Your task to perform on an android device: add a label to a message in the gmail app Image 0: 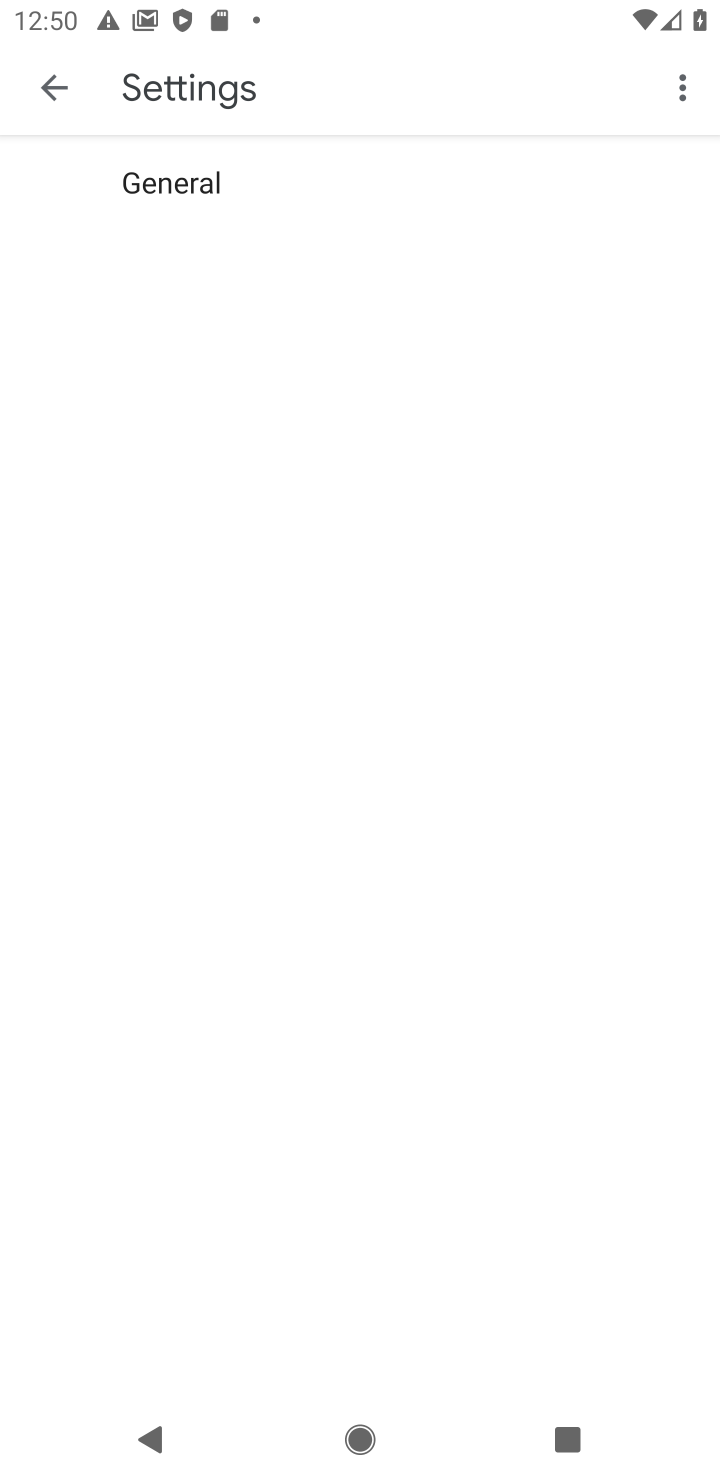
Step 0: press home button
Your task to perform on an android device: add a label to a message in the gmail app Image 1: 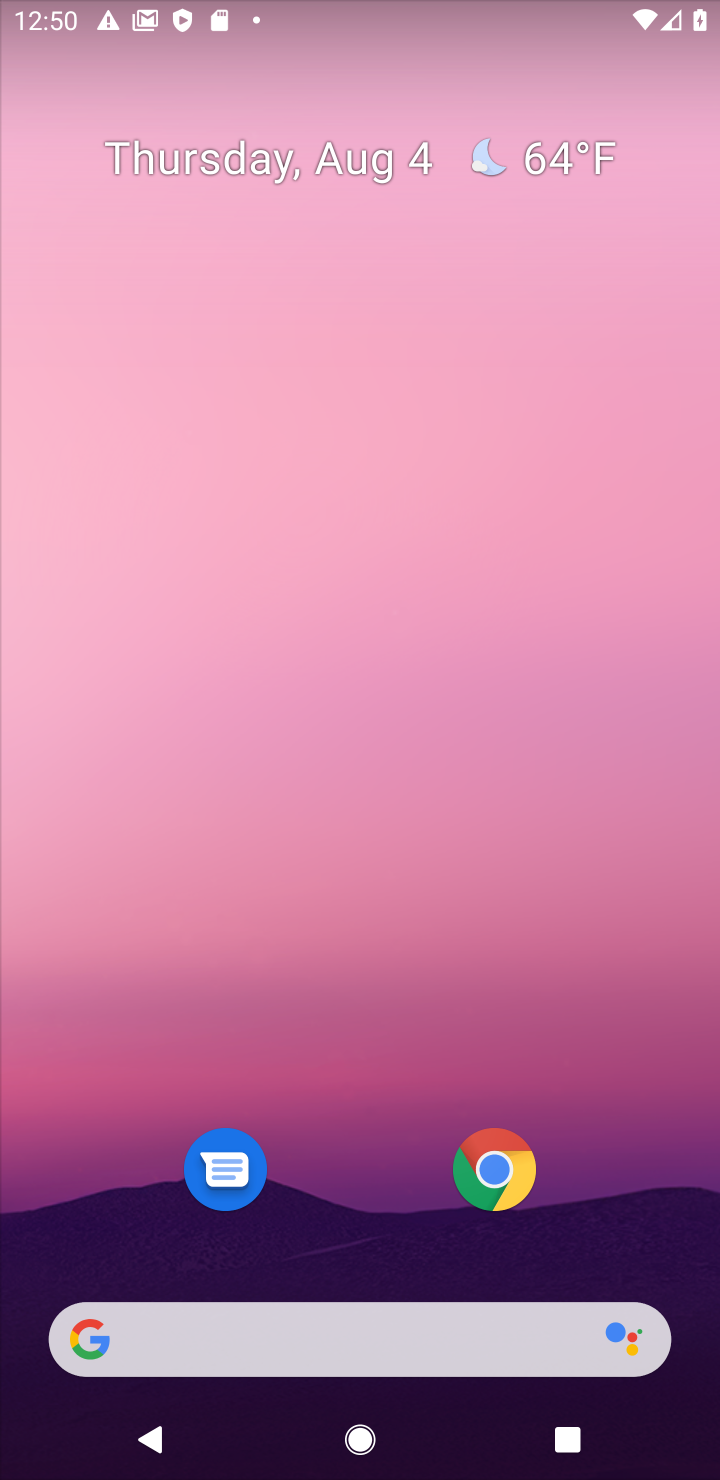
Step 1: drag from (339, 1129) to (388, 29)
Your task to perform on an android device: add a label to a message in the gmail app Image 2: 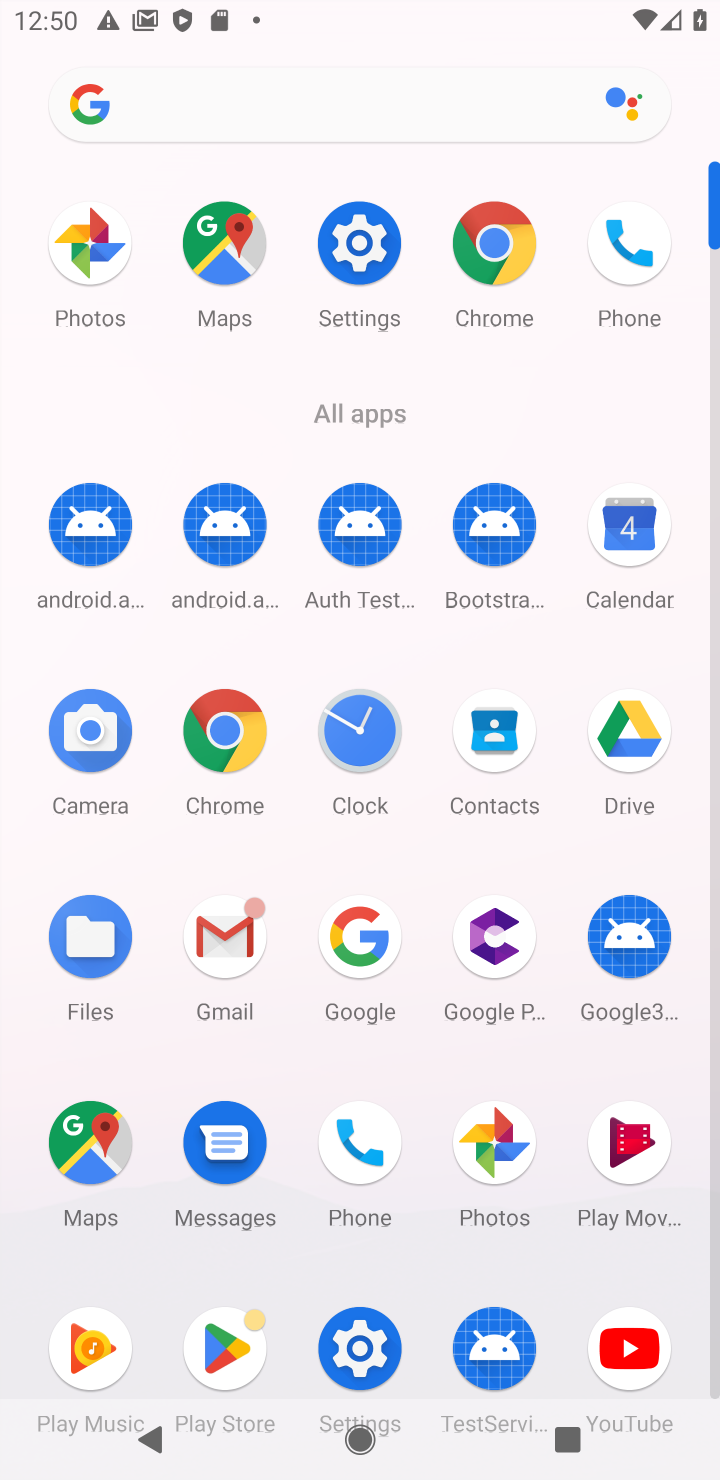
Step 2: click (236, 956)
Your task to perform on an android device: add a label to a message in the gmail app Image 3: 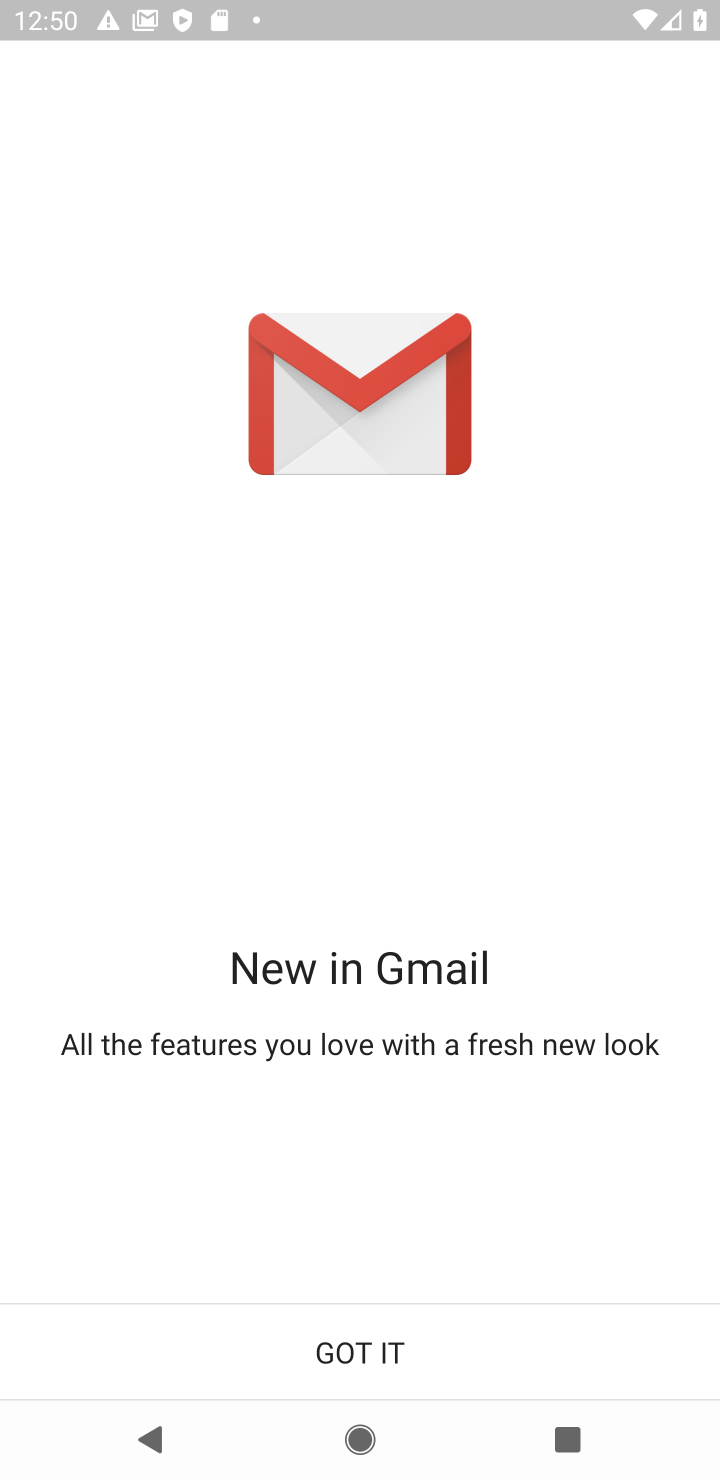
Step 3: click (406, 1333)
Your task to perform on an android device: add a label to a message in the gmail app Image 4: 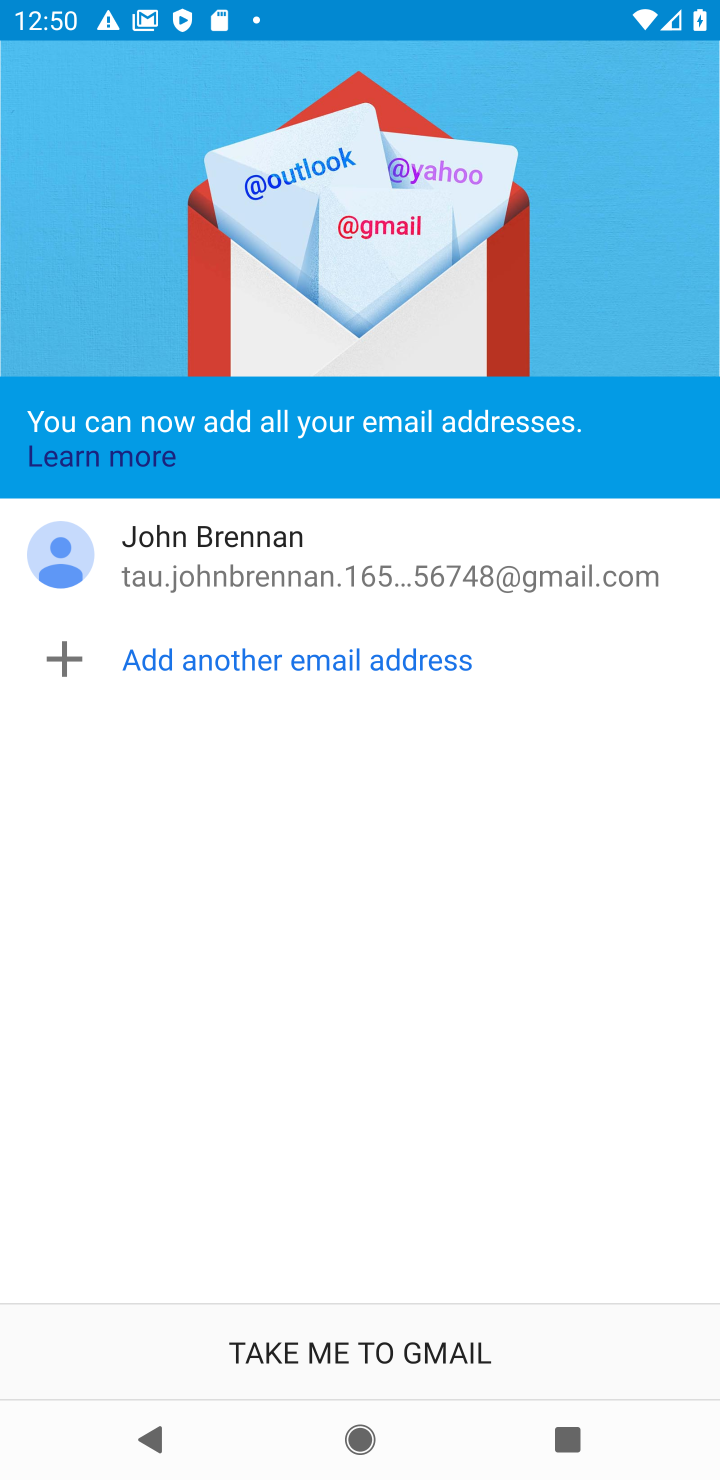
Step 4: click (350, 1347)
Your task to perform on an android device: add a label to a message in the gmail app Image 5: 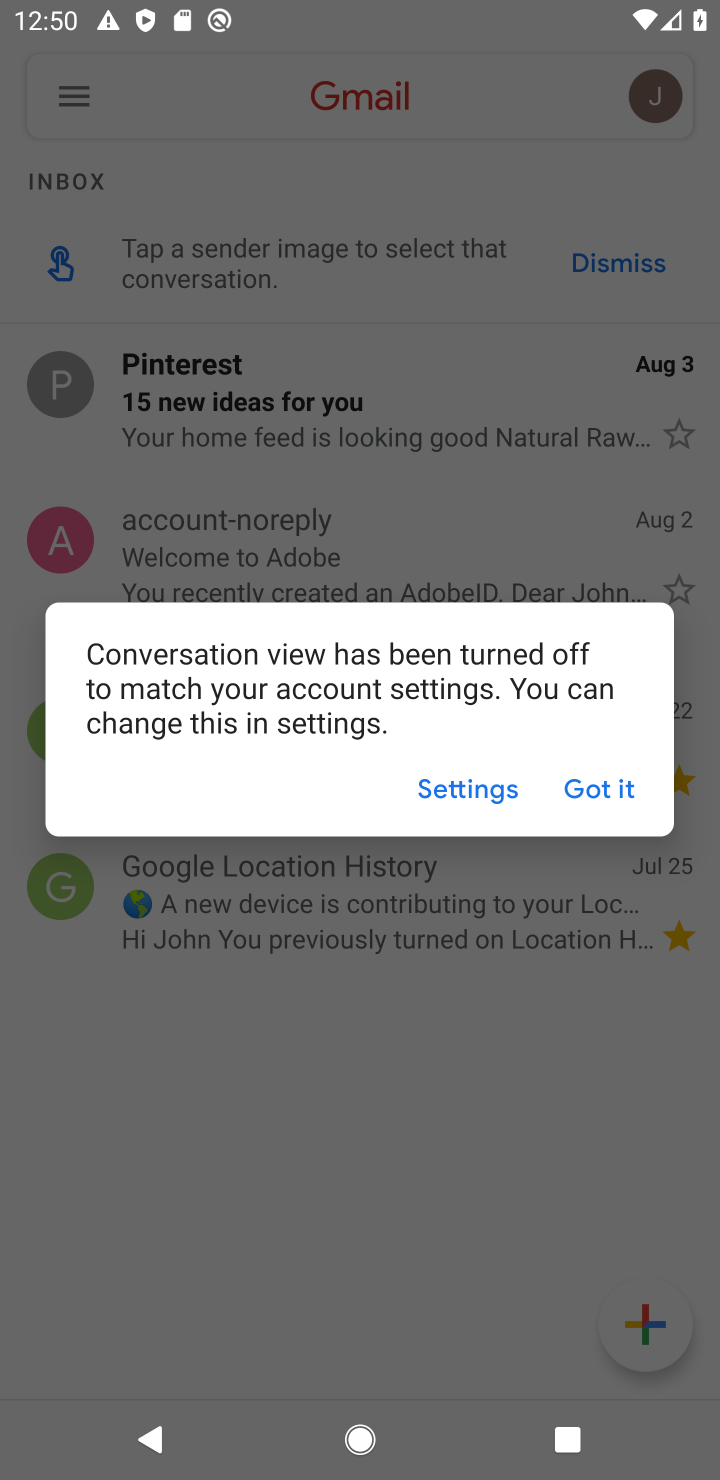
Step 5: click (592, 787)
Your task to perform on an android device: add a label to a message in the gmail app Image 6: 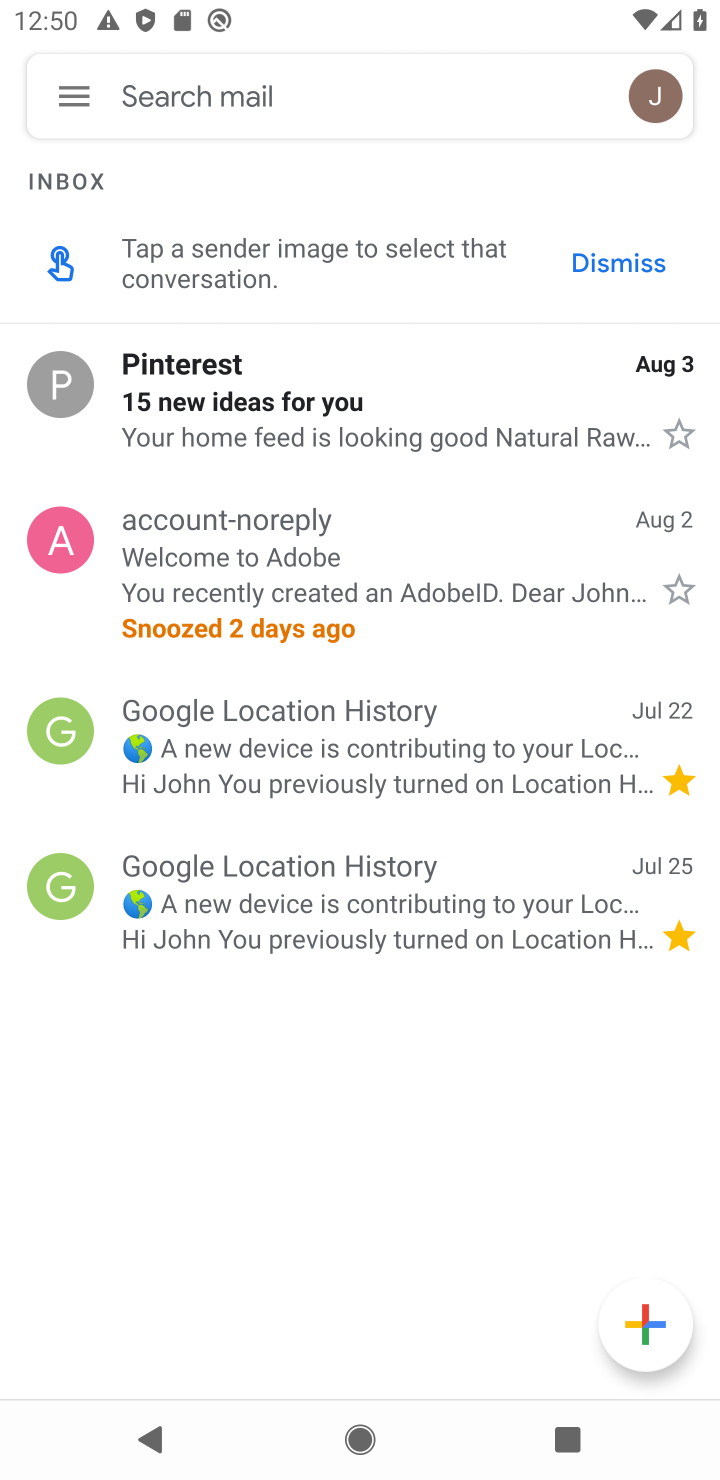
Step 6: click (57, 380)
Your task to perform on an android device: add a label to a message in the gmail app Image 7: 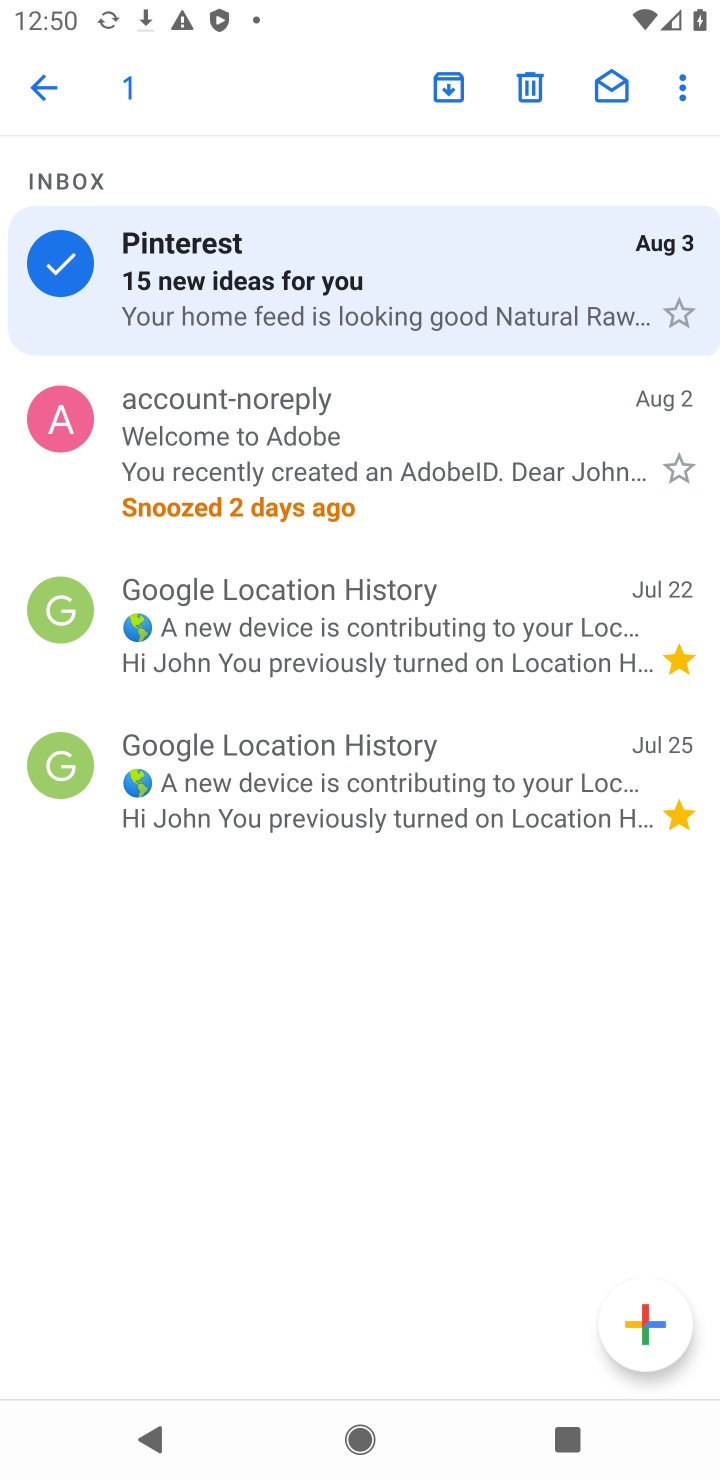
Step 7: click (679, 91)
Your task to perform on an android device: add a label to a message in the gmail app Image 8: 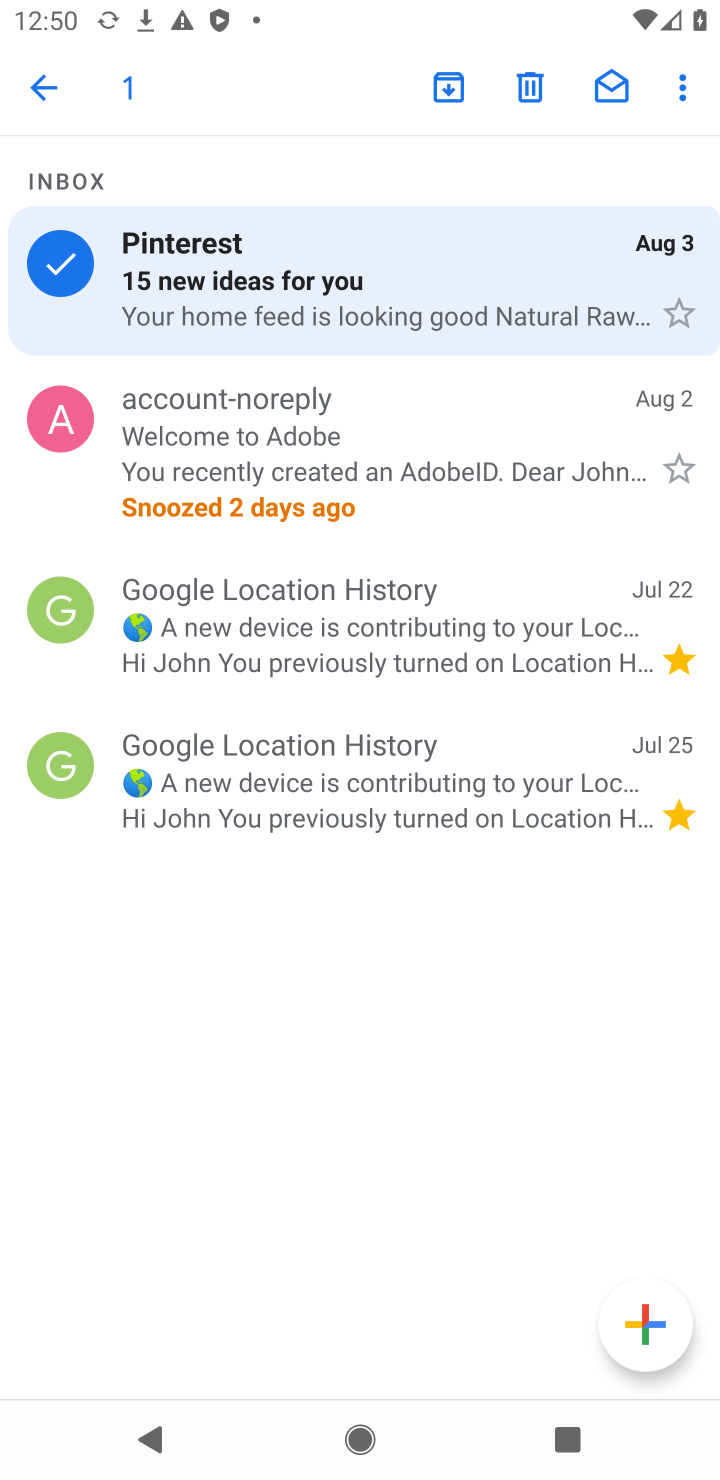
Step 8: click (677, 81)
Your task to perform on an android device: add a label to a message in the gmail app Image 9: 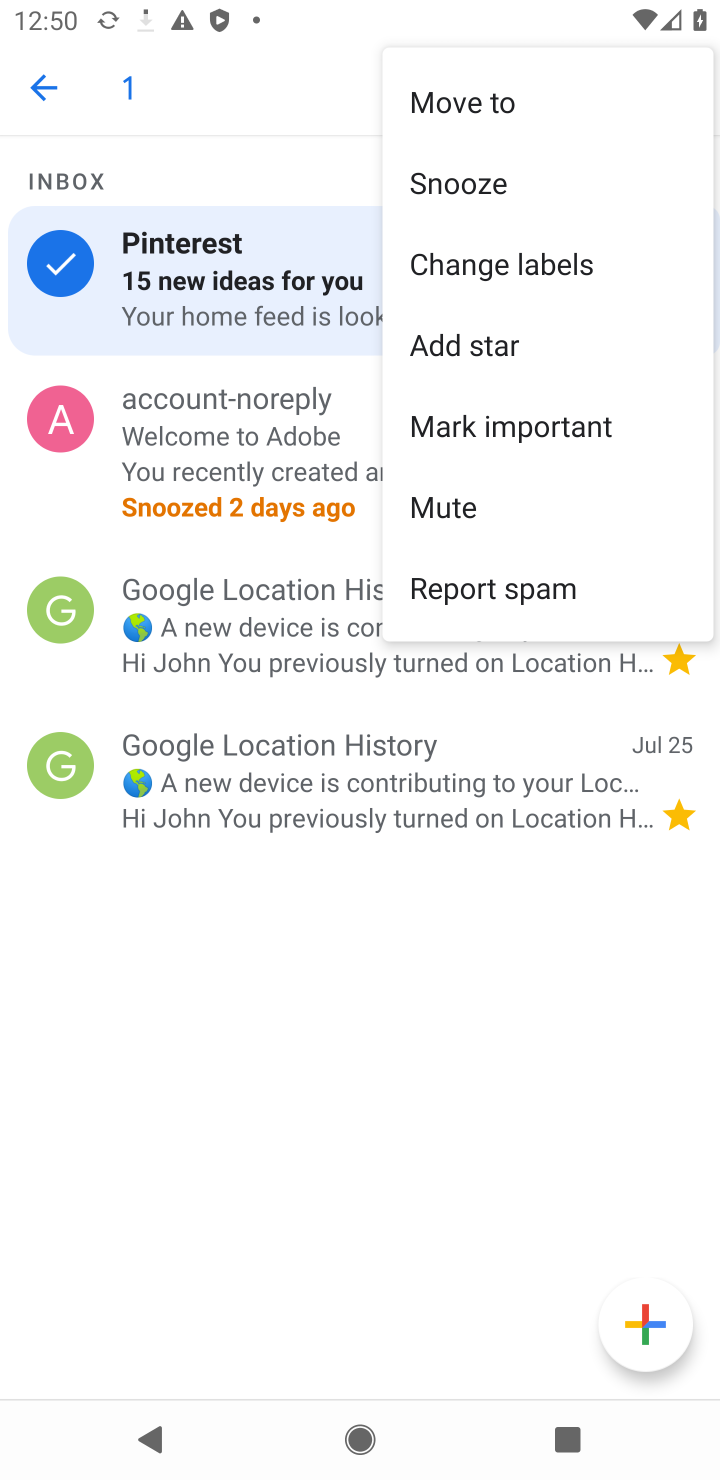
Step 9: click (503, 266)
Your task to perform on an android device: add a label to a message in the gmail app Image 10: 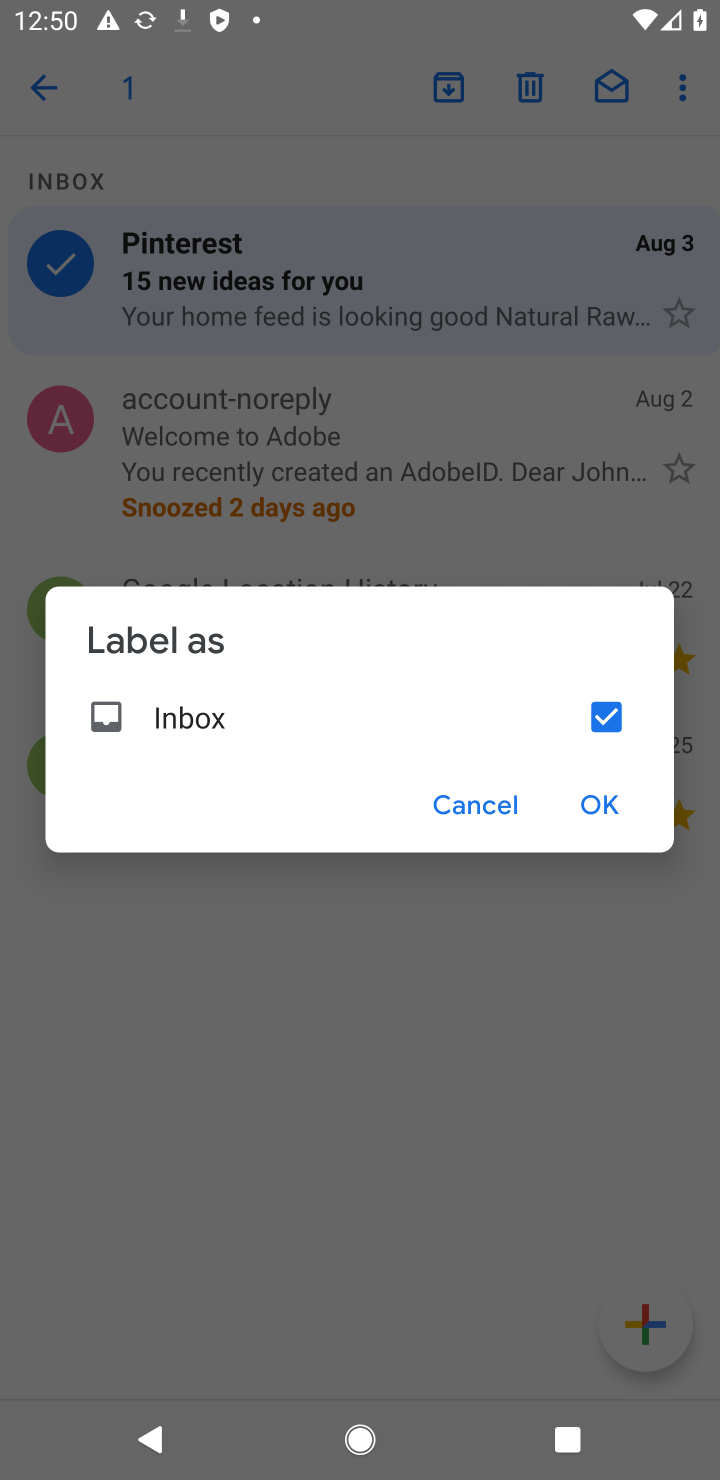
Step 10: click (610, 698)
Your task to perform on an android device: add a label to a message in the gmail app Image 11: 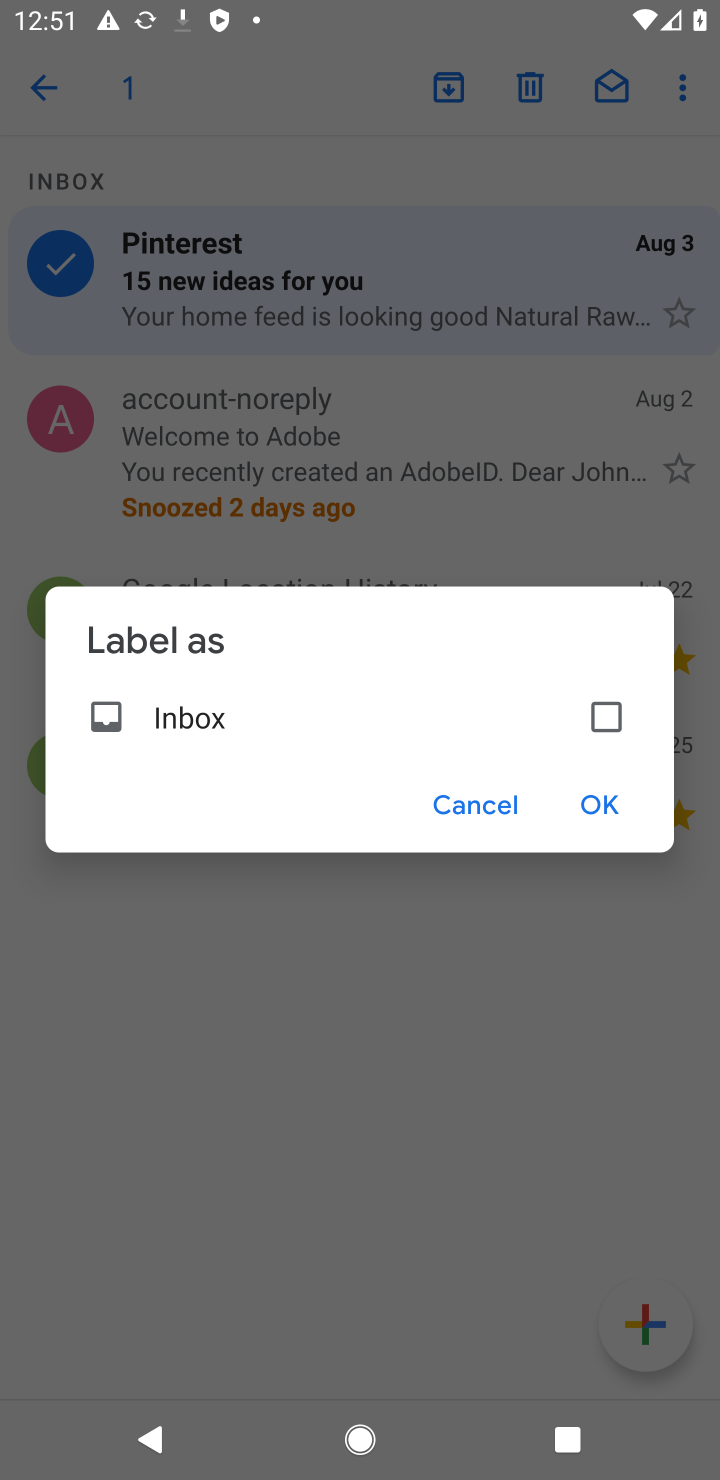
Step 11: click (610, 801)
Your task to perform on an android device: add a label to a message in the gmail app Image 12: 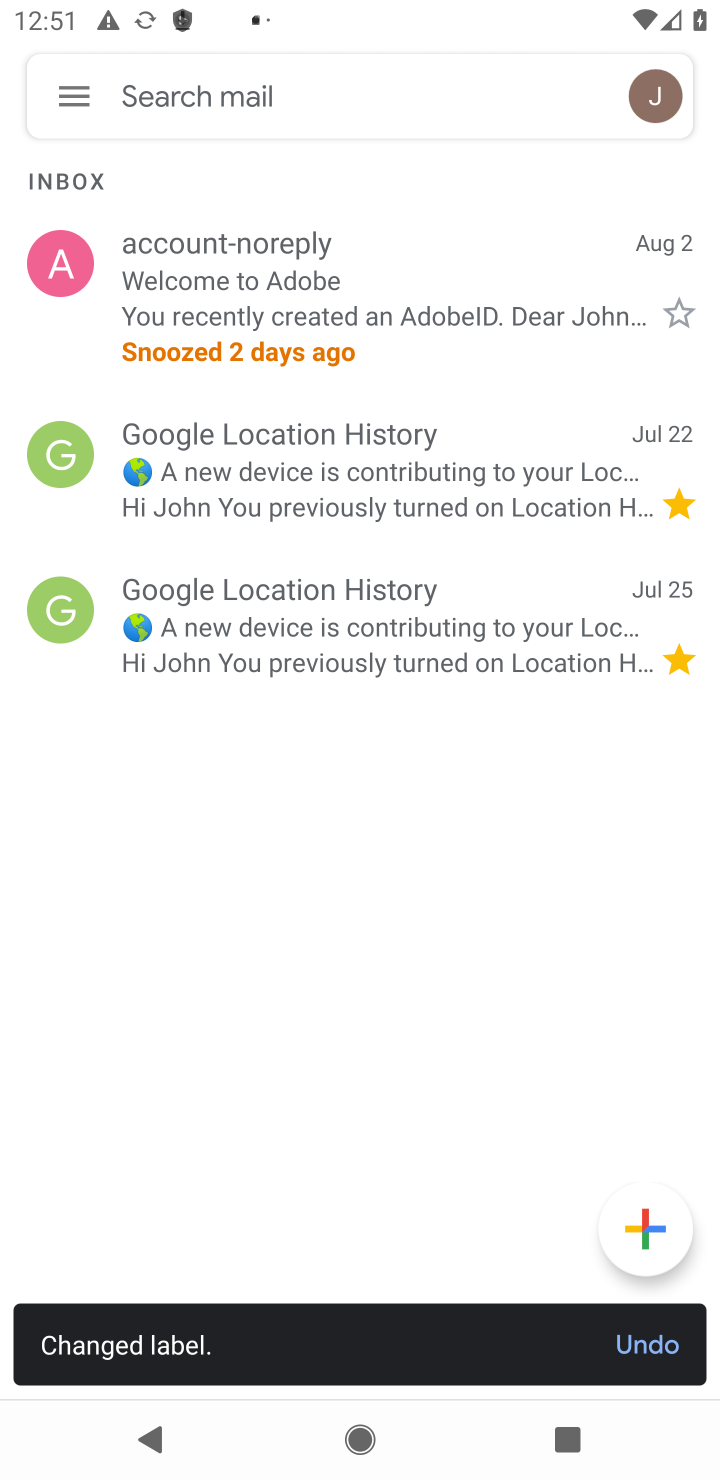
Step 12: task complete